Your task to perform on an android device: What's the weather today? Image 0: 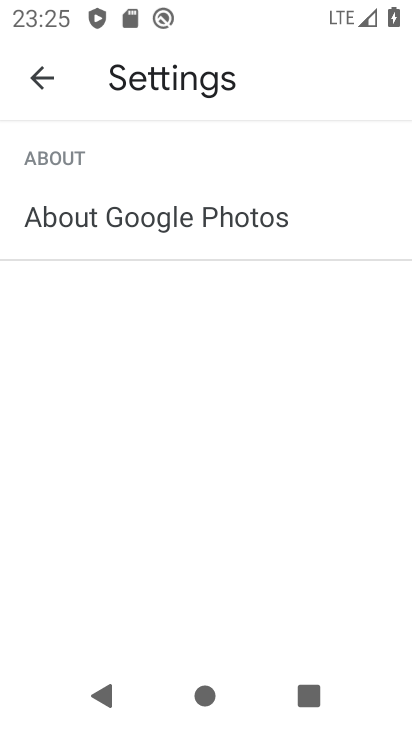
Step 0: press home button
Your task to perform on an android device: What's the weather today? Image 1: 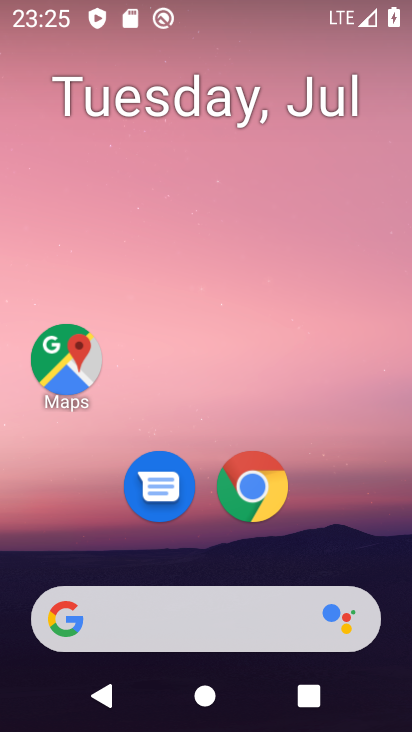
Step 1: click (227, 612)
Your task to perform on an android device: What's the weather today? Image 2: 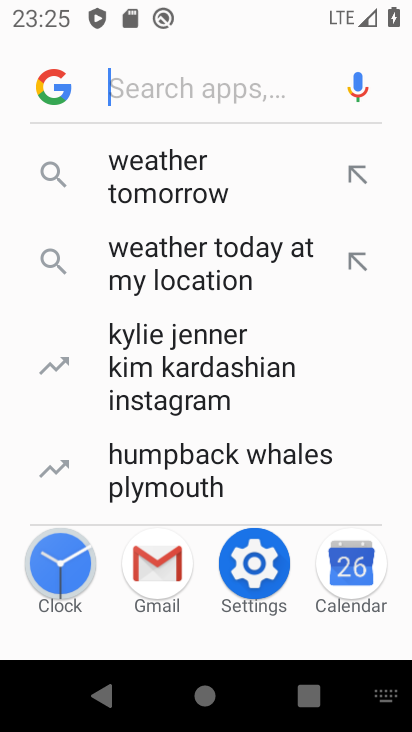
Step 2: type "weather"
Your task to perform on an android device: What's the weather today? Image 3: 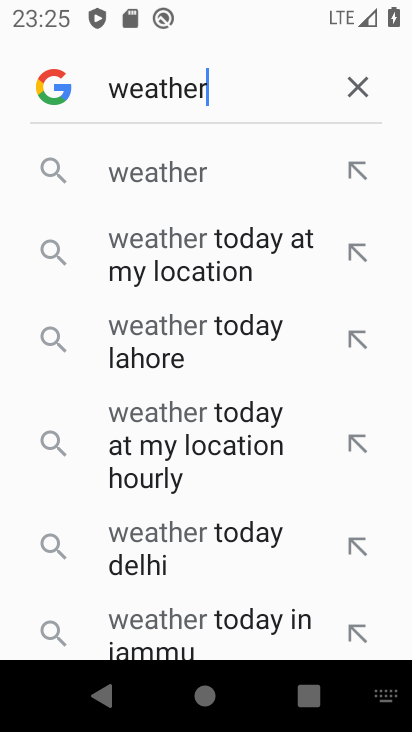
Step 3: click (204, 167)
Your task to perform on an android device: What's the weather today? Image 4: 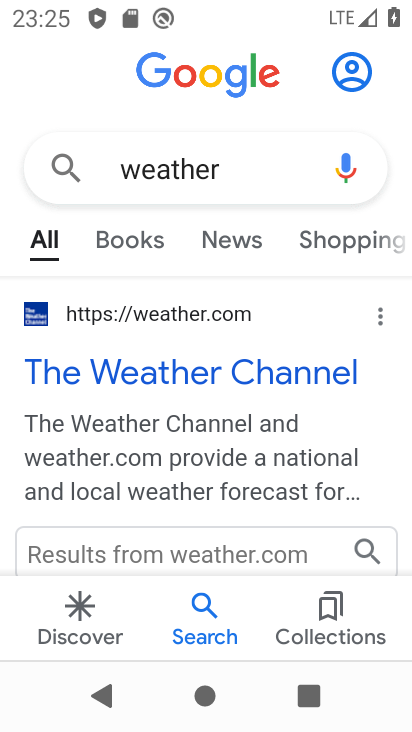
Step 4: task complete